Your task to perform on an android device: change the clock display to show seconds Image 0: 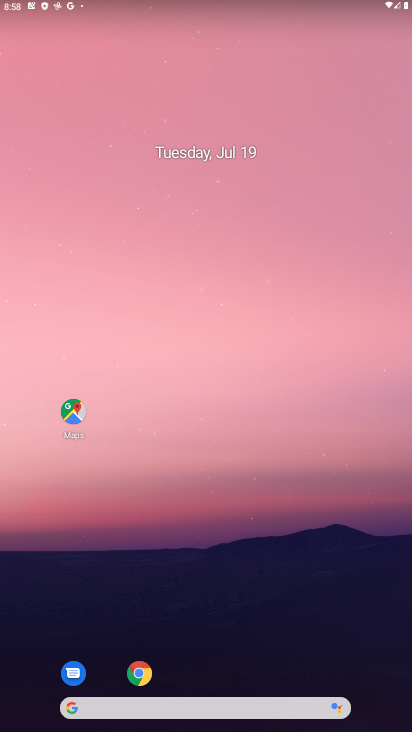
Step 0: drag from (254, 662) to (200, 228)
Your task to perform on an android device: change the clock display to show seconds Image 1: 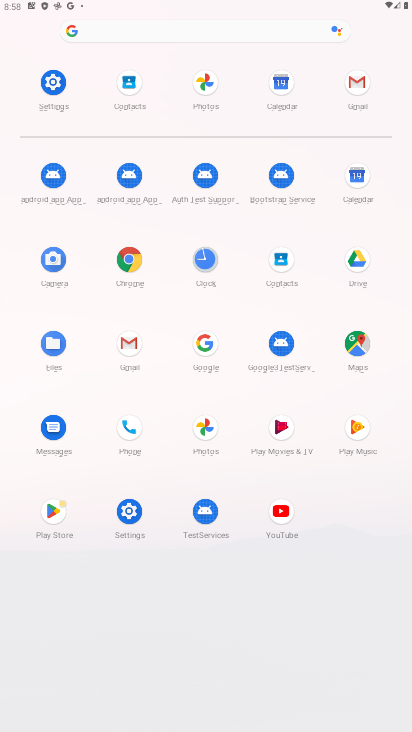
Step 1: click (196, 255)
Your task to perform on an android device: change the clock display to show seconds Image 2: 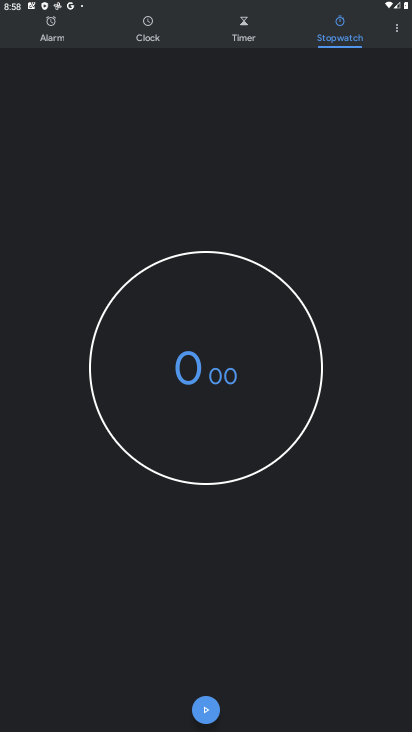
Step 2: click (407, 29)
Your task to perform on an android device: change the clock display to show seconds Image 3: 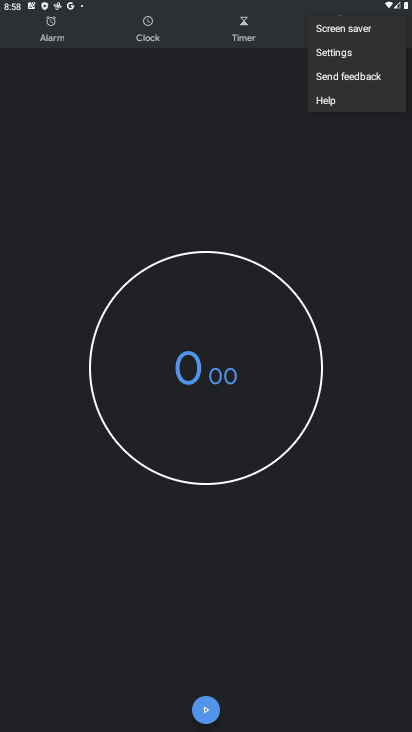
Step 3: click (321, 50)
Your task to perform on an android device: change the clock display to show seconds Image 4: 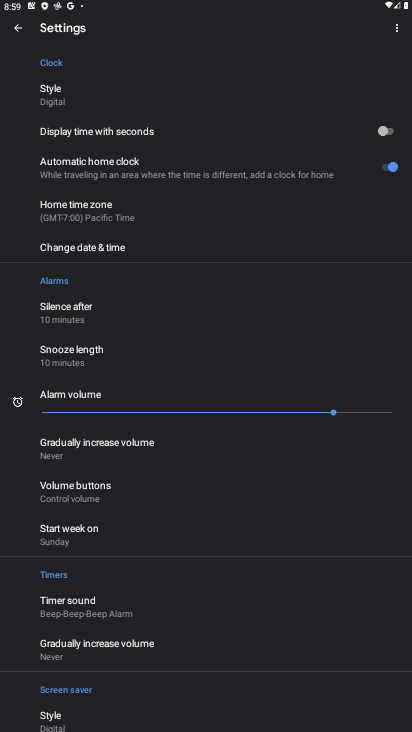
Step 4: task complete